Your task to perform on an android device: Clear the shopping cart on costco.com. Search for "razer blackwidow" on costco.com, select the first entry, and add it to the cart. Image 0: 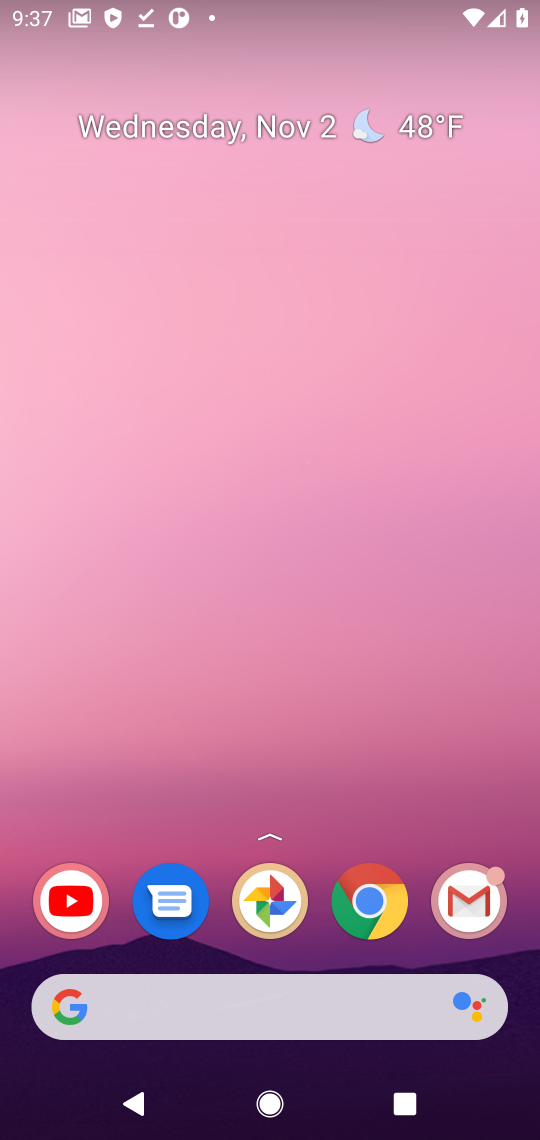
Step 0: click (361, 909)
Your task to perform on an android device: Clear the shopping cart on costco.com. Search for "razer blackwidow" on costco.com, select the first entry, and add it to the cart. Image 1: 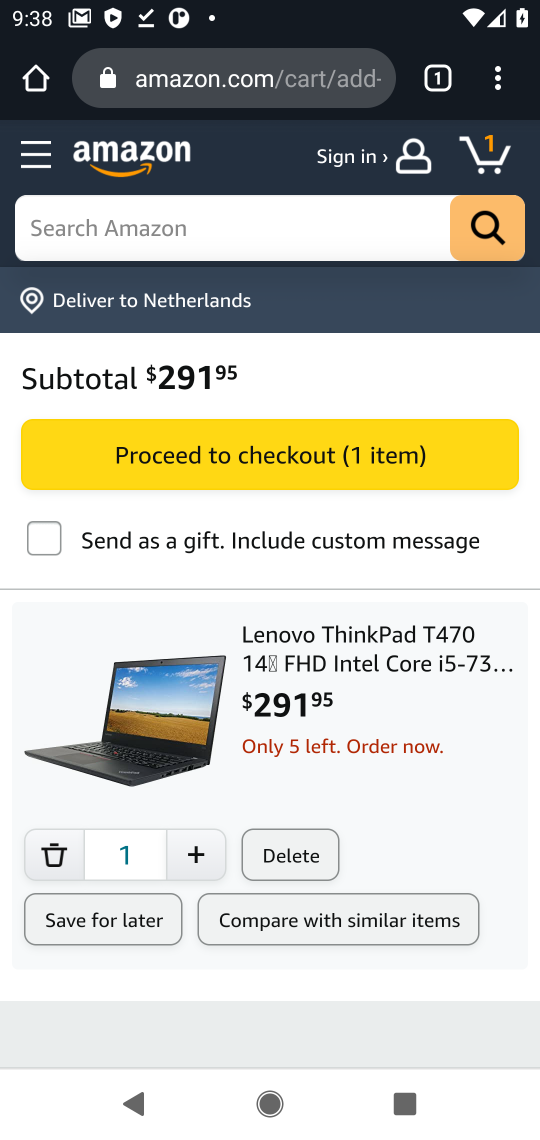
Step 1: click (218, 96)
Your task to perform on an android device: Clear the shopping cart on costco.com. Search for "razer blackwidow" on costco.com, select the first entry, and add it to the cart. Image 2: 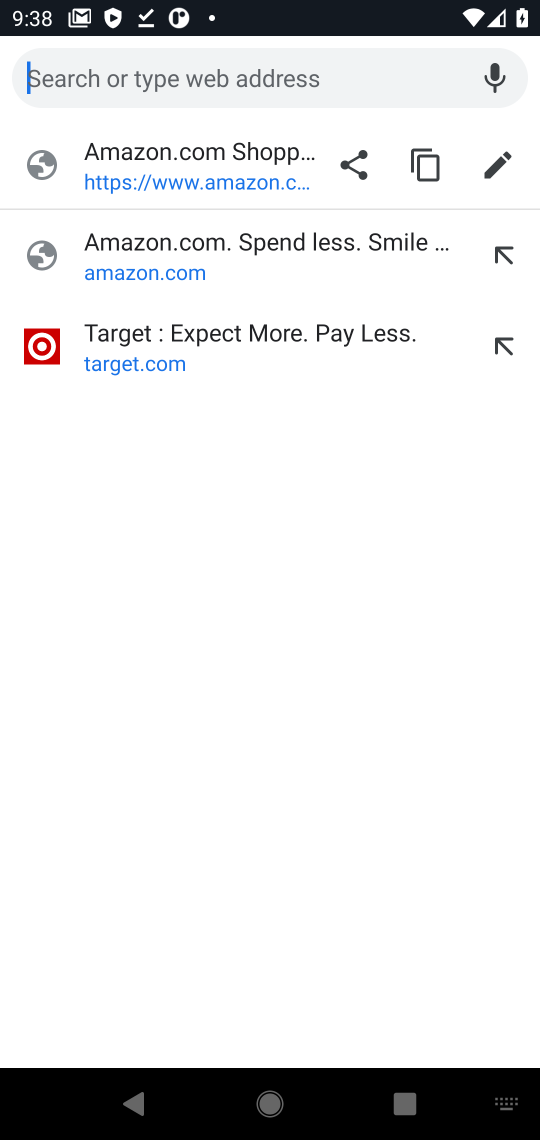
Step 2: type "costco"
Your task to perform on an android device: Clear the shopping cart on costco.com. Search for "razer blackwidow" on costco.com, select the first entry, and add it to the cart. Image 3: 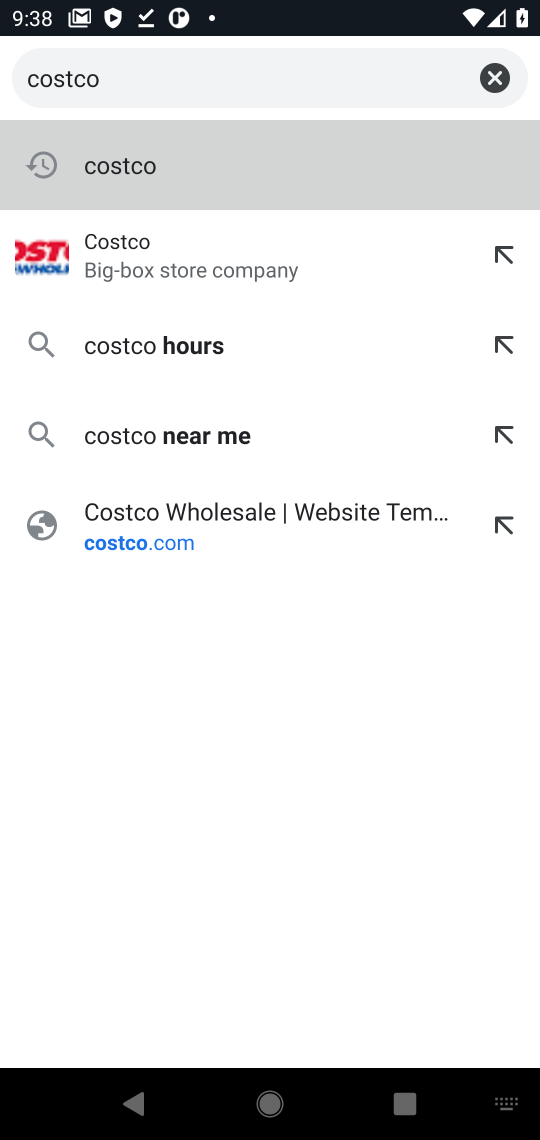
Step 3: click (143, 166)
Your task to perform on an android device: Clear the shopping cart on costco.com. Search for "razer blackwidow" on costco.com, select the first entry, and add it to the cart. Image 4: 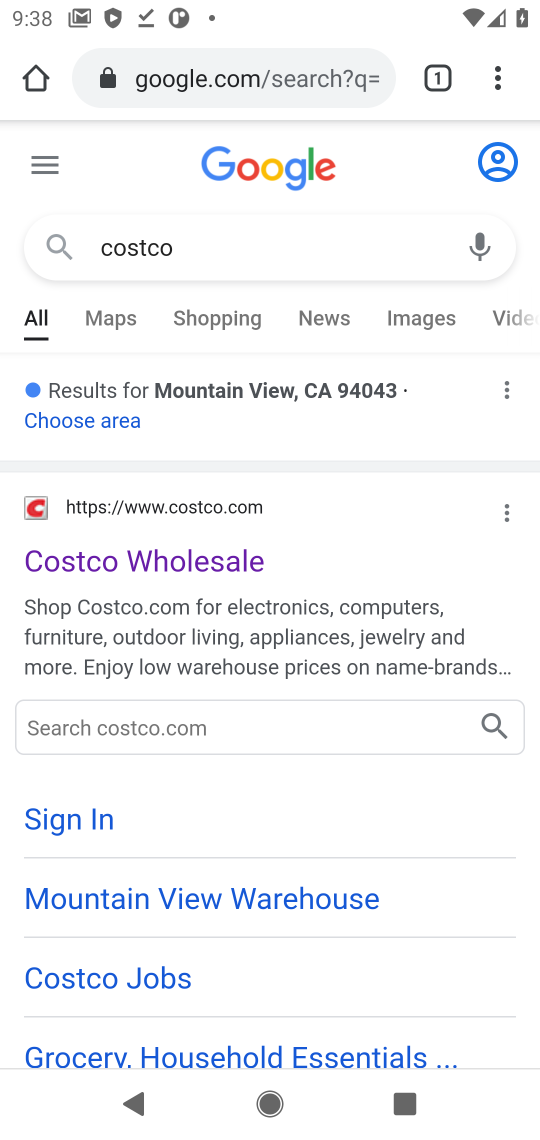
Step 4: click (199, 562)
Your task to perform on an android device: Clear the shopping cart on costco.com. Search for "razer blackwidow" on costco.com, select the first entry, and add it to the cart. Image 5: 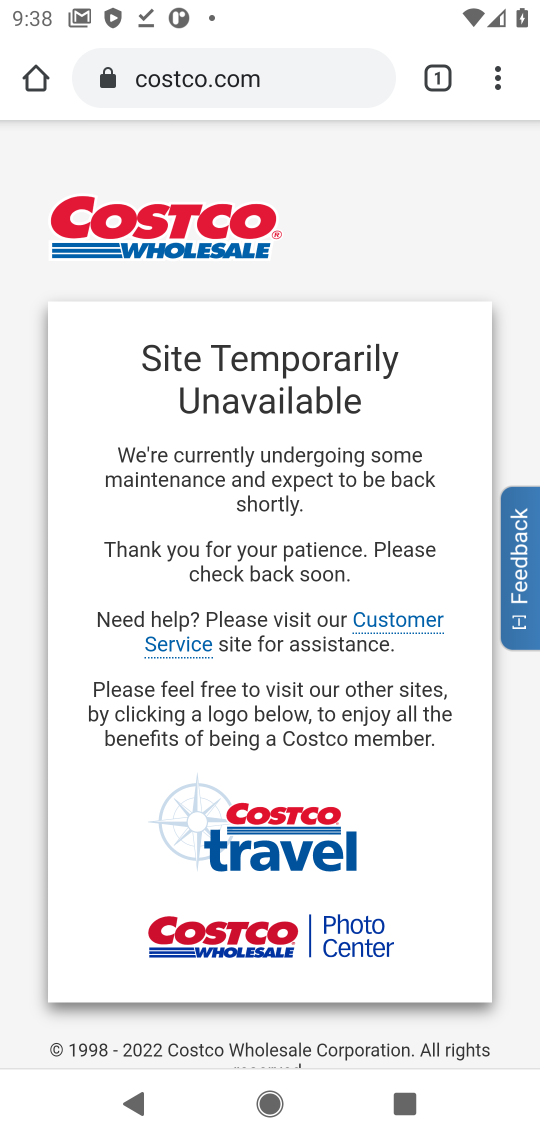
Step 5: task complete